Your task to perform on an android device: turn pop-ups on in chrome Image 0: 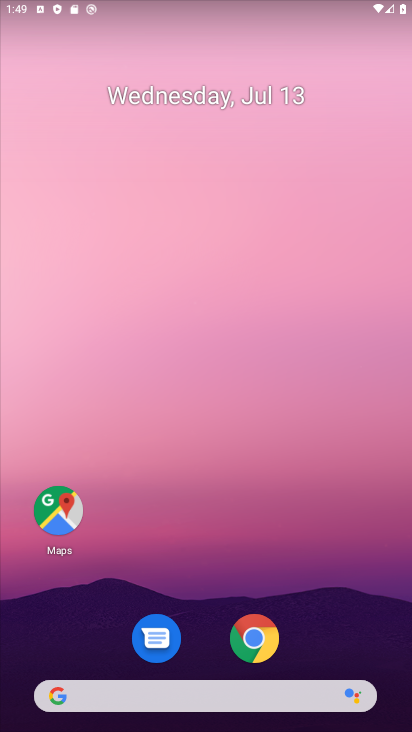
Step 0: click (255, 647)
Your task to perform on an android device: turn pop-ups on in chrome Image 1: 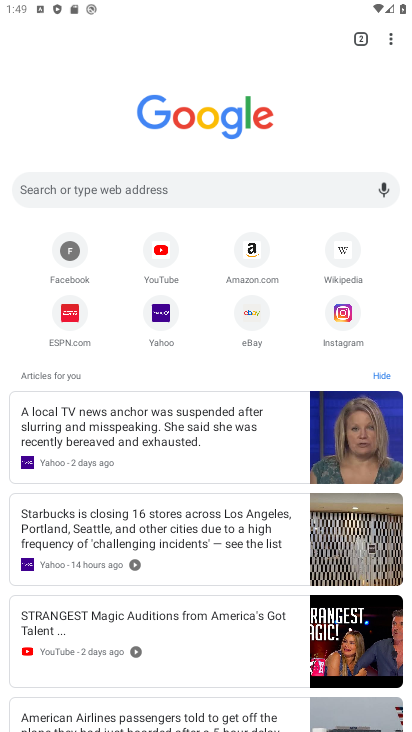
Step 1: click (390, 38)
Your task to perform on an android device: turn pop-ups on in chrome Image 2: 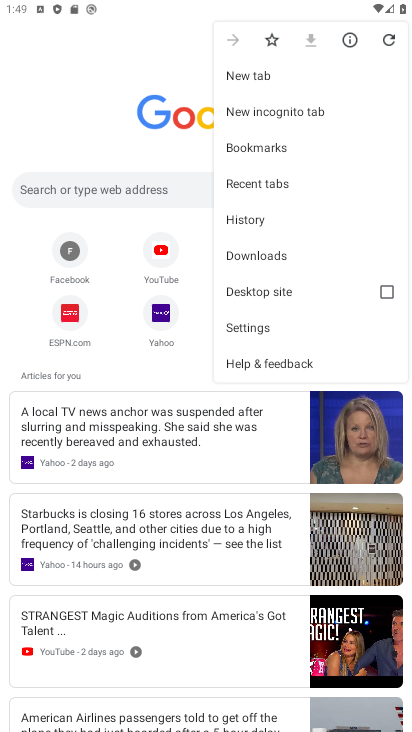
Step 2: click (261, 327)
Your task to perform on an android device: turn pop-ups on in chrome Image 3: 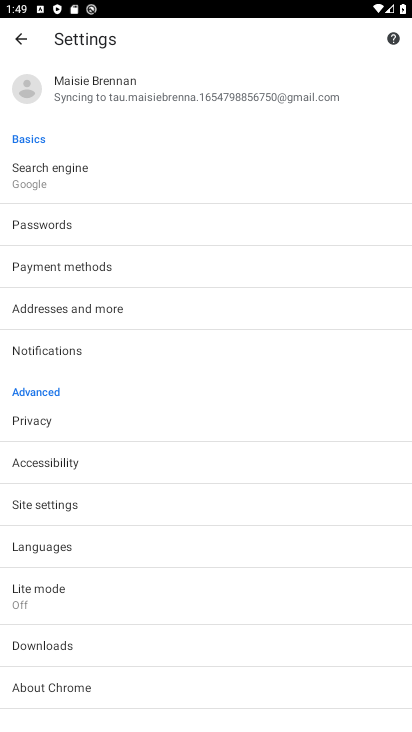
Step 3: click (53, 499)
Your task to perform on an android device: turn pop-ups on in chrome Image 4: 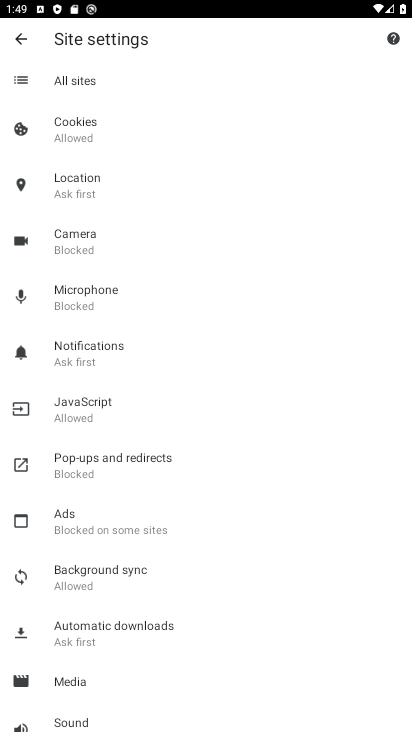
Step 4: click (146, 457)
Your task to perform on an android device: turn pop-ups on in chrome Image 5: 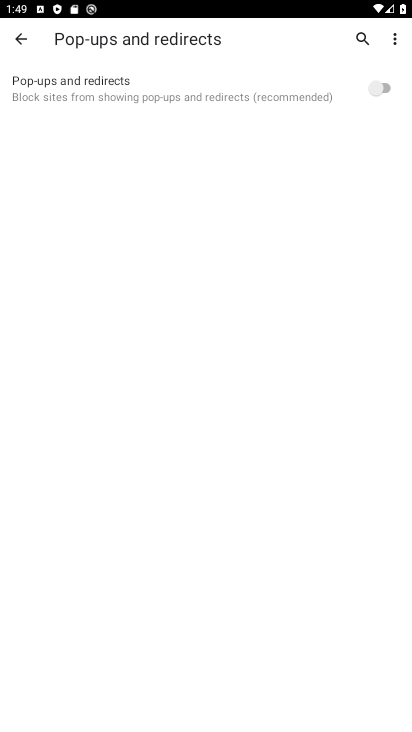
Step 5: click (373, 82)
Your task to perform on an android device: turn pop-ups on in chrome Image 6: 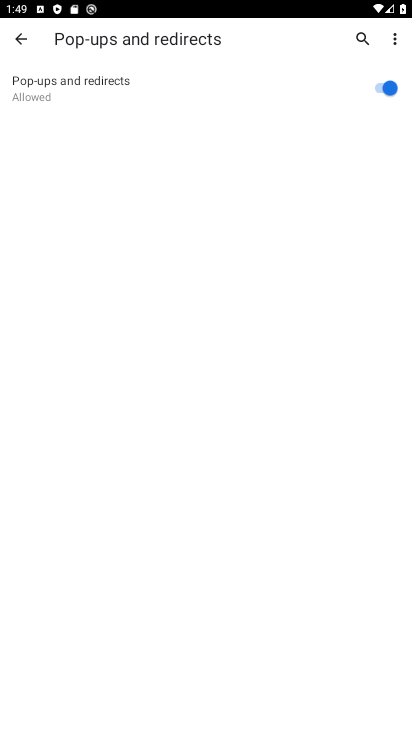
Step 6: task complete